Your task to perform on an android device: check battery use Image 0: 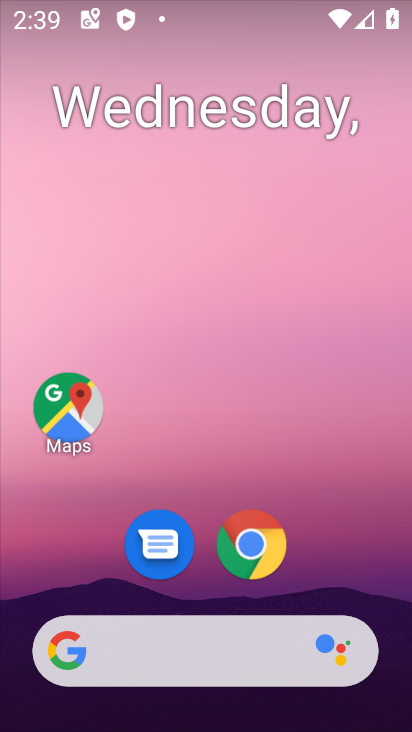
Step 0: drag from (369, 572) to (369, 173)
Your task to perform on an android device: check battery use Image 1: 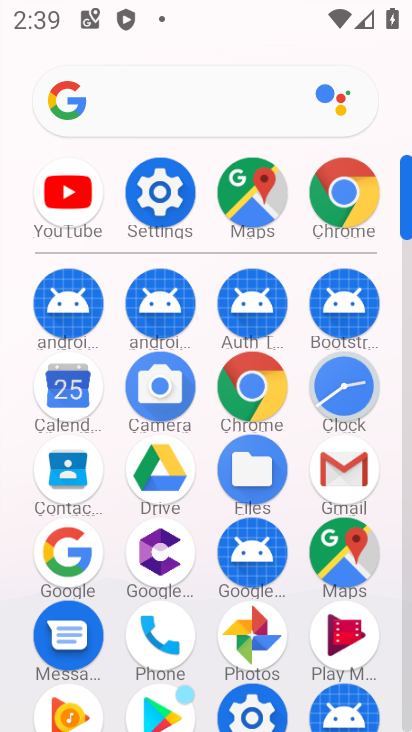
Step 1: click (166, 201)
Your task to perform on an android device: check battery use Image 2: 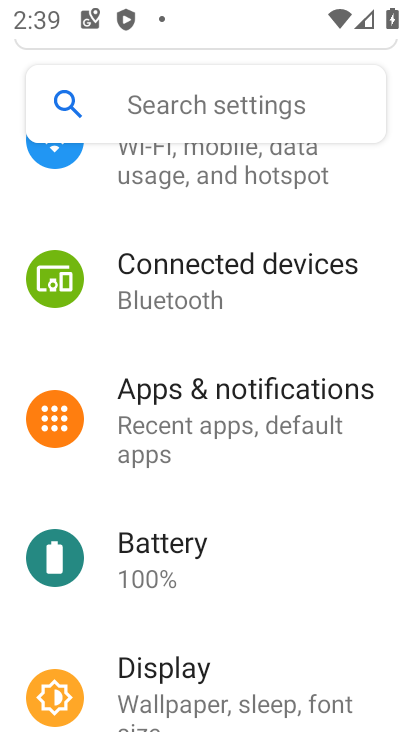
Step 2: click (185, 561)
Your task to perform on an android device: check battery use Image 3: 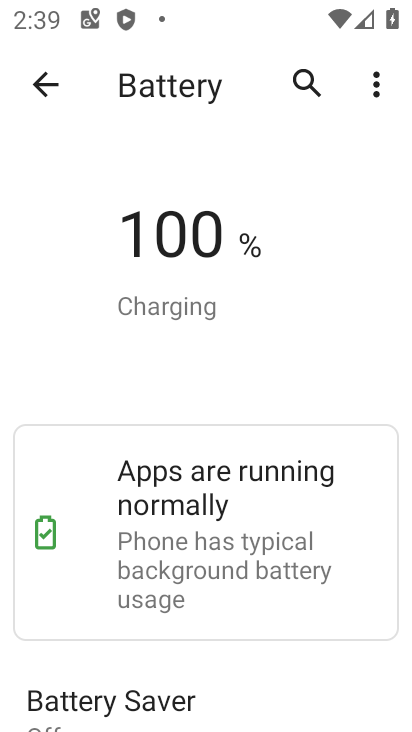
Step 3: task complete